Your task to perform on an android device: open wifi settings Image 0: 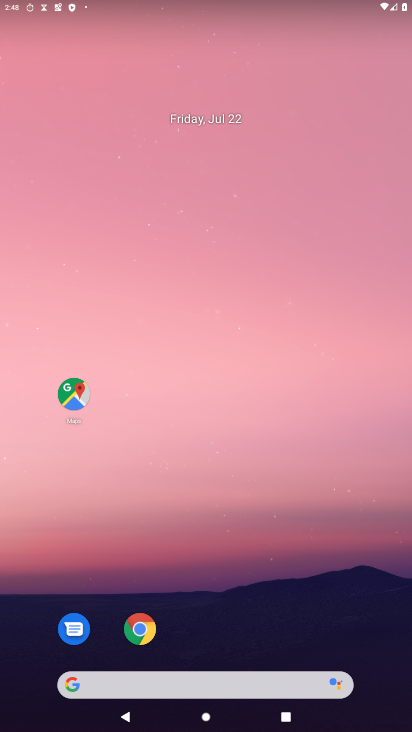
Step 0: drag from (246, 640) to (26, 56)
Your task to perform on an android device: open wifi settings Image 1: 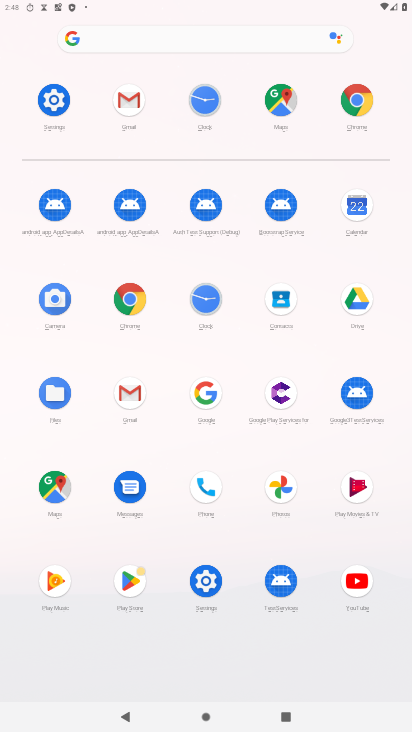
Step 1: click (54, 108)
Your task to perform on an android device: open wifi settings Image 2: 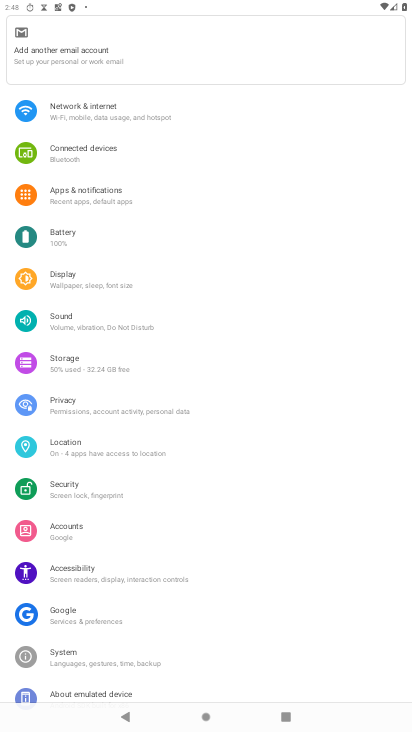
Step 2: click (141, 113)
Your task to perform on an android device: open wifi settings Image 3: 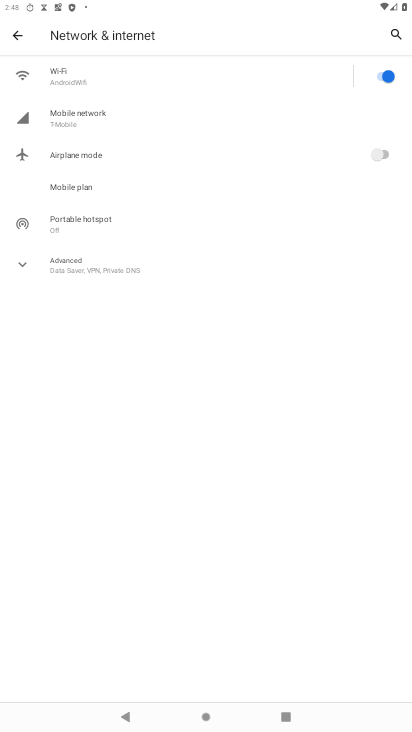
Step 3: click (93, 79)
Your task to perform on an android device: open wifi settings Image 4: 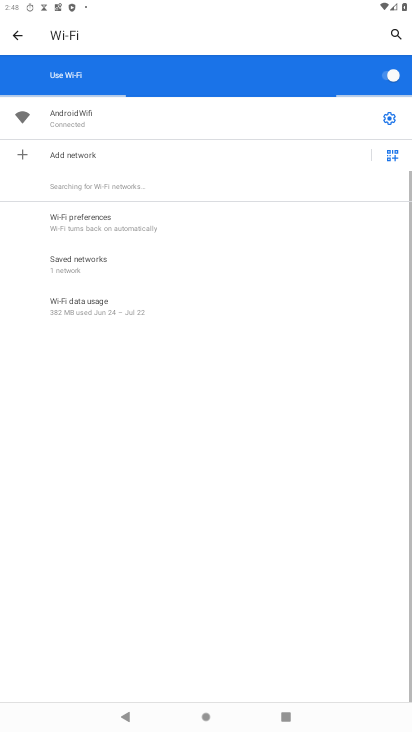
Step 4: task complete